Your task to perform on an android device: visit the assistant section in the google photos Image 0: 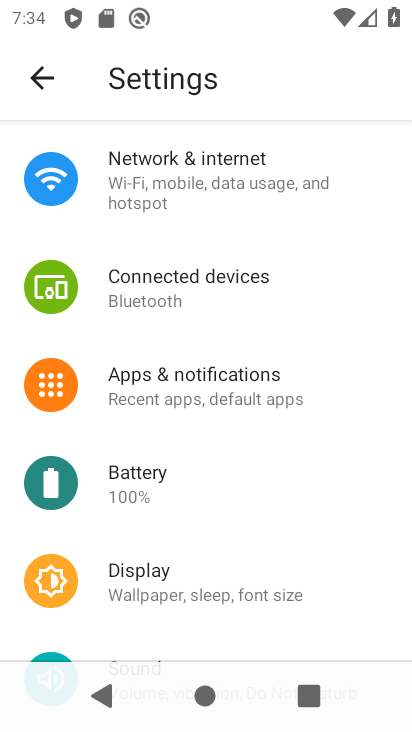
Step 0: press home button
Your task to perform on an android device: visit the assistant section in the google photos Image 1: 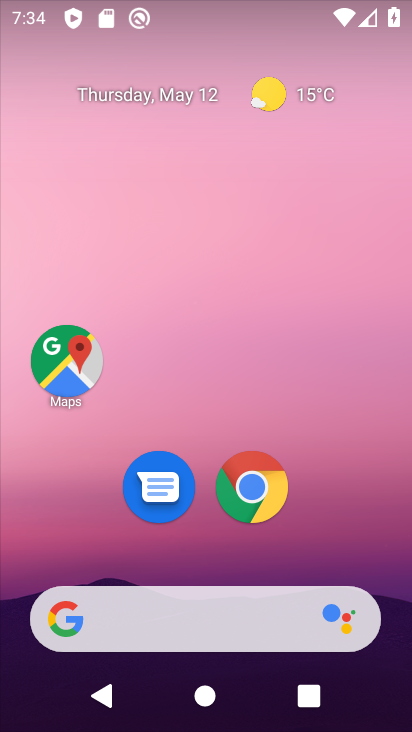
Step 1: drag from (347, 497) to (326, 20)
Your task to perform on an android device: visit the assistant section in the google photos Image 2: 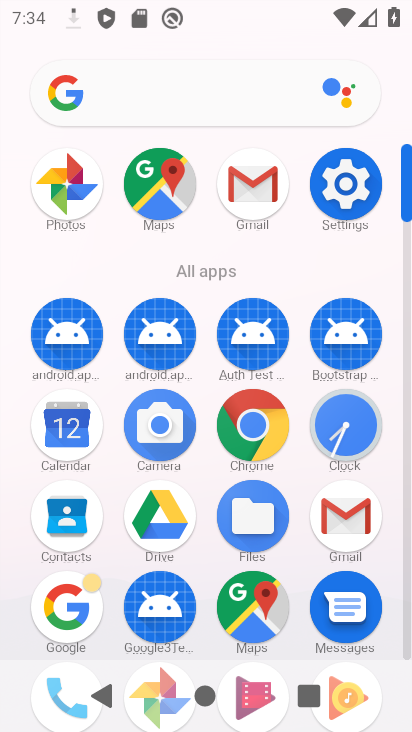
Step 2: click (76, 203)
Your task to perform on an android device: visit the assistant section in the google photos Image 3: 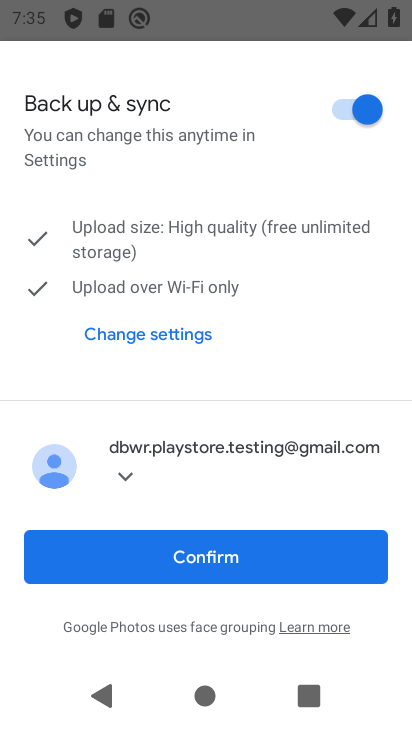
Step 3: click (210, 564)
Your task to perform on an android device: visit the assistant section in the google photos Image 4: 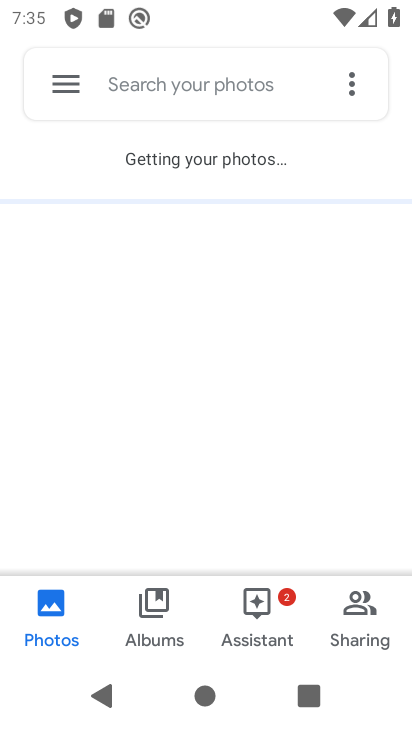
Step 4: click (249, 593)
Your task to perform on an android device: visit the assistant section in the google photos Image 5: 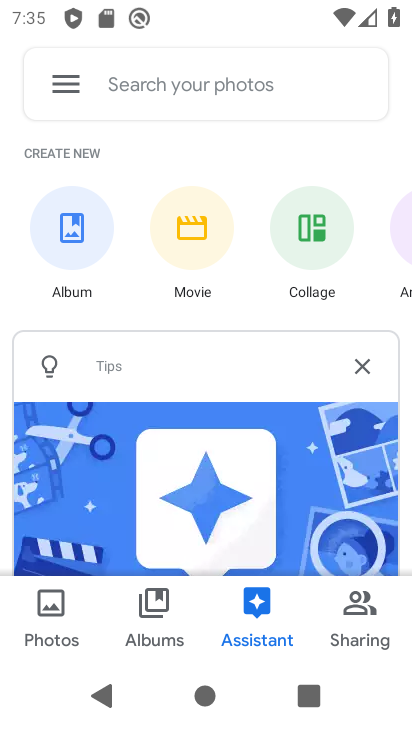
Step 5: task complete